Your task to perform on an android device: What's on my calendar tomorrow? Image 0: 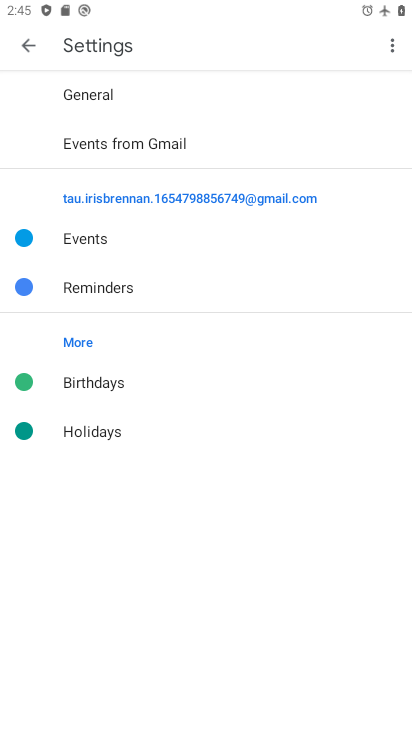
Step 0: press home button
Your task to perform on an android device: What's on my calendar tomorrow? Image 1: 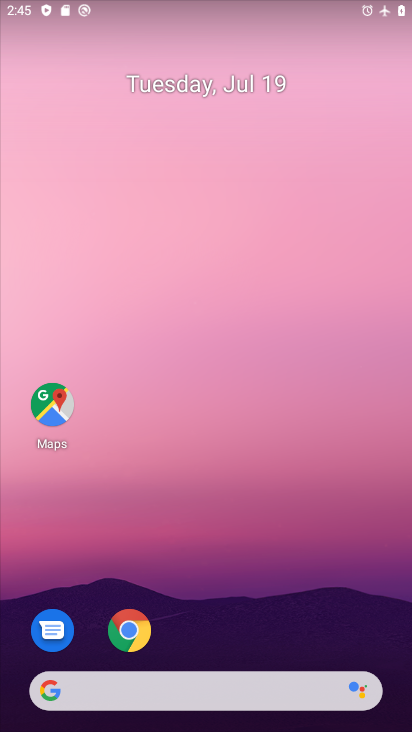
Step 1: drag from (314, 561) to (326, 109)
Your task to perform on an android device: What's on my calendar tomorrow? Image 2: 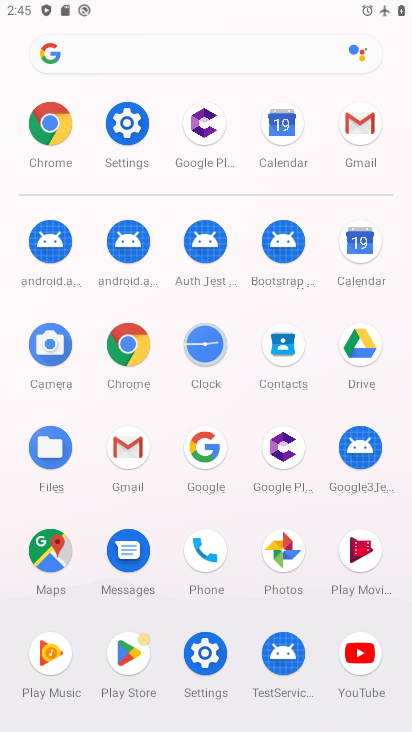
Step 2: click (283, 122)
Your task to perform on an android device: What's on my calendar tomorrow? Image 3: 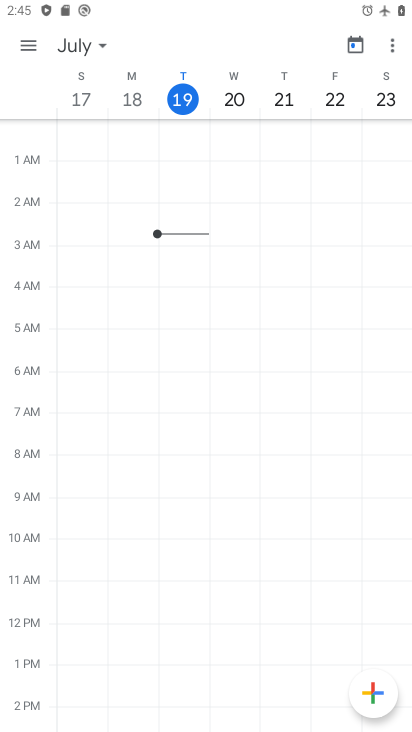
Step 3: task complete